Your task to perform on an android device: Open my contact list Image 0: 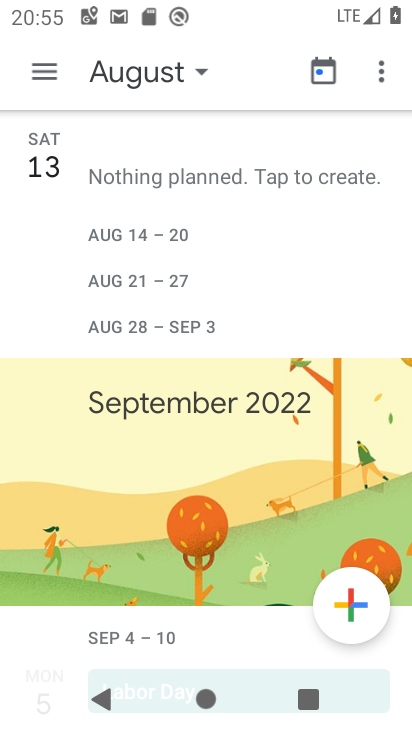
Step 0: press home button
Your task to perform on an android device: Open my contact list Image 1: 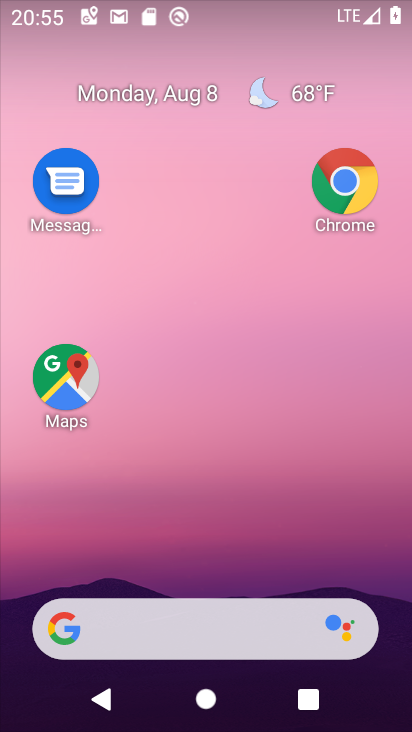
Step 1: drag from (215, 579) to (158, 169)
Your task to perform on an android device: Open my contact list Image 2: 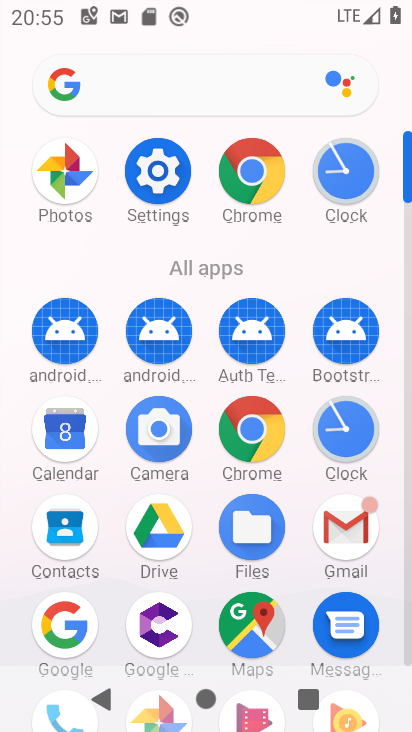
Step 2: drag from (122, 585) to (114, 85)
Your task to perform on an android device: Open my contact list Image 3: 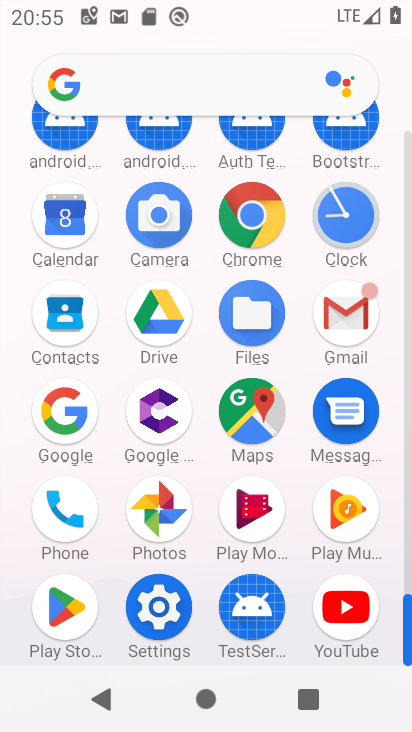
Step 3: click (69, 491)
Your task to perform on an android device: Open my contact list Image 4: 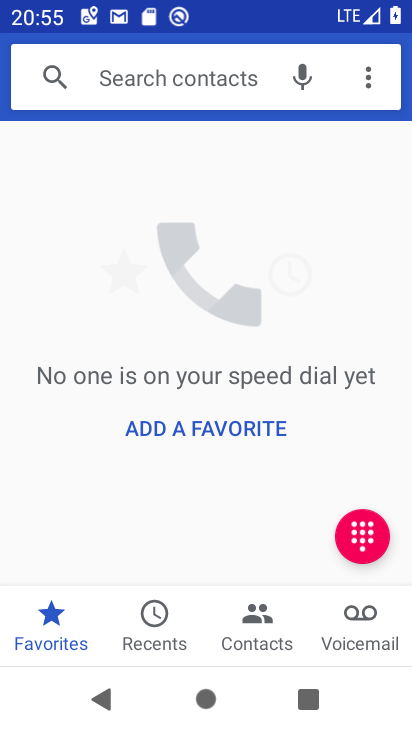
Step 4: click (252, 623)
Your task to perform on an android device: Open my contact list Image 5: 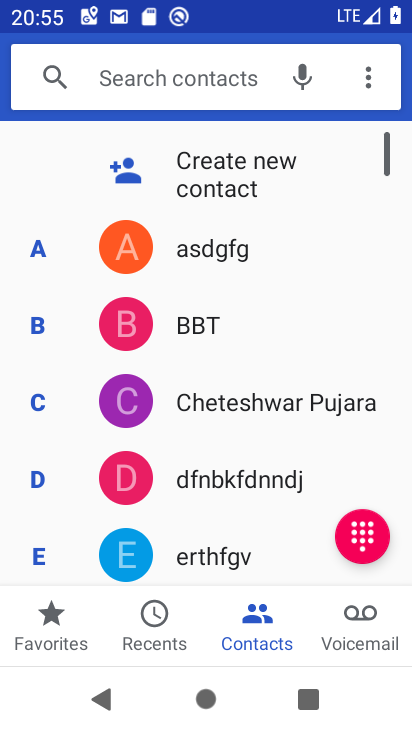
Step 5: task complete